Your task to perform on an android device: turn on translation in the chrome app Image 0: 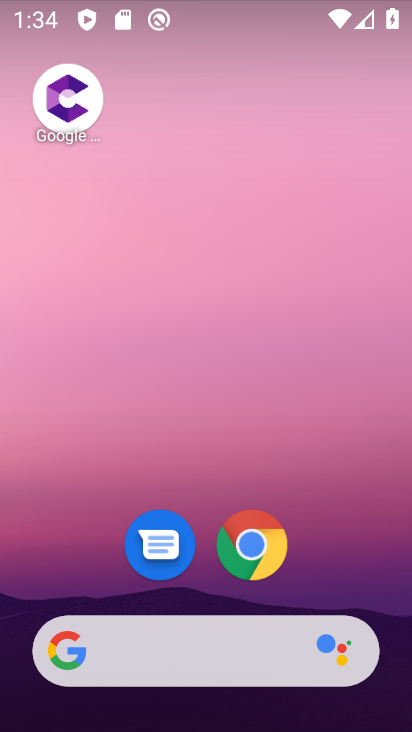
Step 0: drag from (376, 580) to (363, 152)
Your task to perform on an android device: turn on translation in the chrome app Image 1: 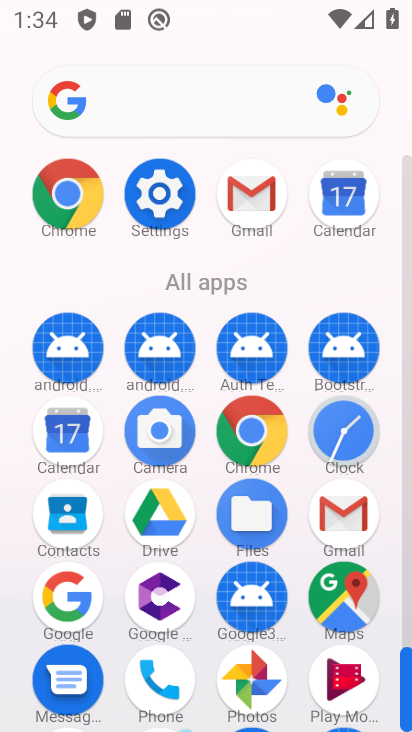
Step 1: click (280, 443)
Your task to perform on an android device: turn on translation in the chrome app Image 2: 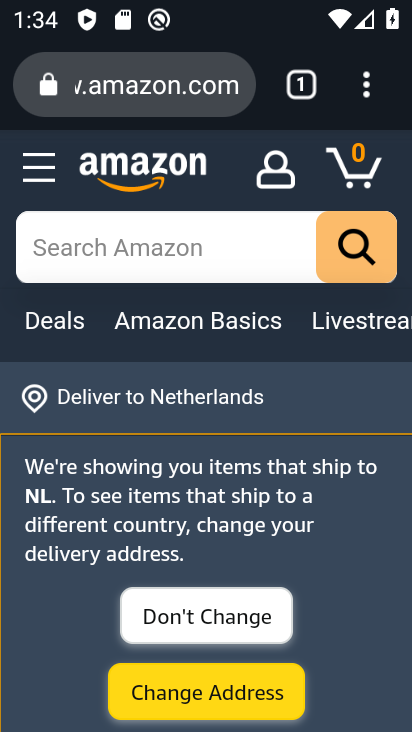
Step 2: click (367, 97)
Your task to perform on an android device: turn on translation in the chrome app Image 3: 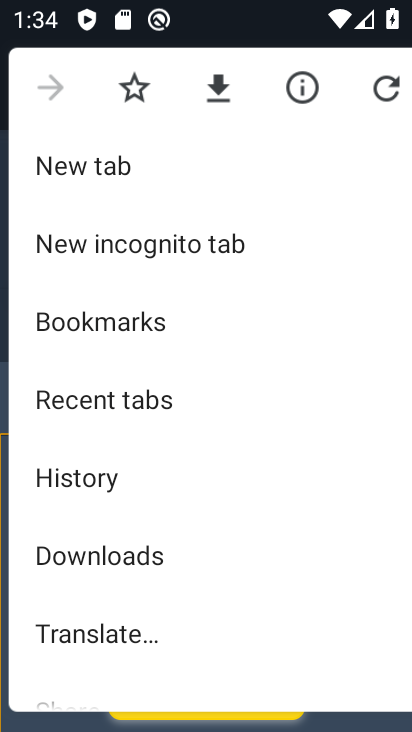
Step 3: drag from (317, 577) to (336, 463)
Your task to perform on an android device: turn on translation in the chrome app Image 4: 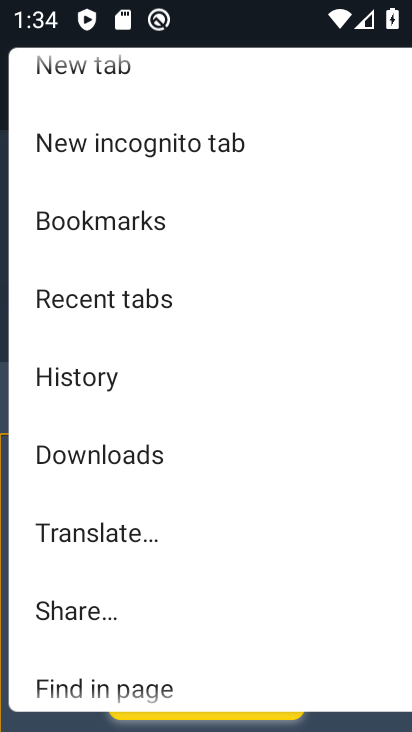
Step 4: drag from (283, 592) to (296, 426)
Your task to perform on an android device: turn on translation in the chrome app Image 5: 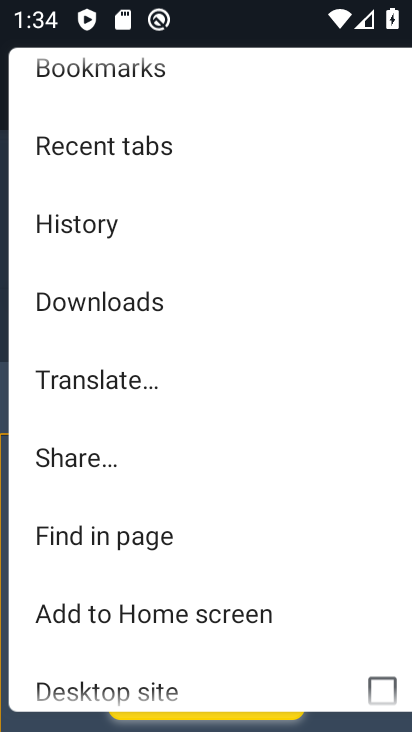
Step 5: drag from (304, 569) to (302, 430)
Your task to perform on an android device: turn on translation in the chrome app Image 6: 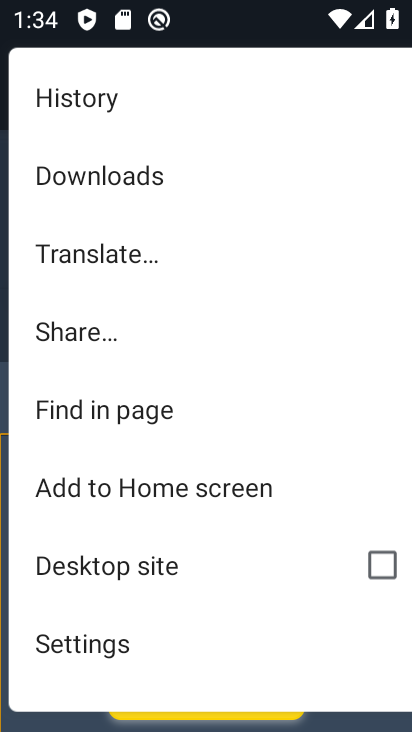
Step 6: drag from (291, 575) to (298, 497)
Your task to perform on an android device: turn on translation in the chrome app Image 7: 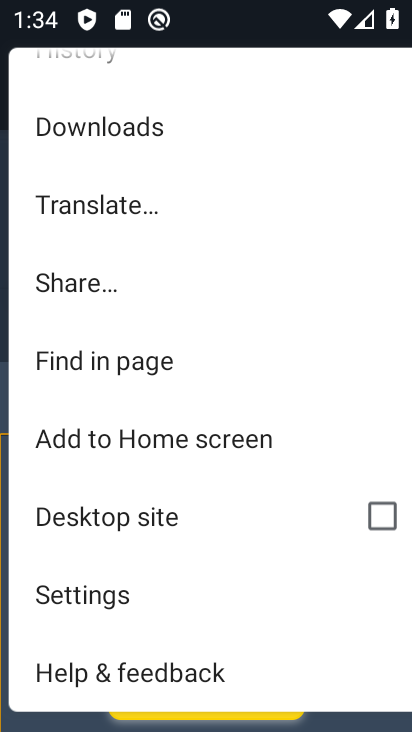
Step 7: drag from (297, 572) to (288, 436)
Your task to perform on an android device: turn on translation in the chrome app Image 8: 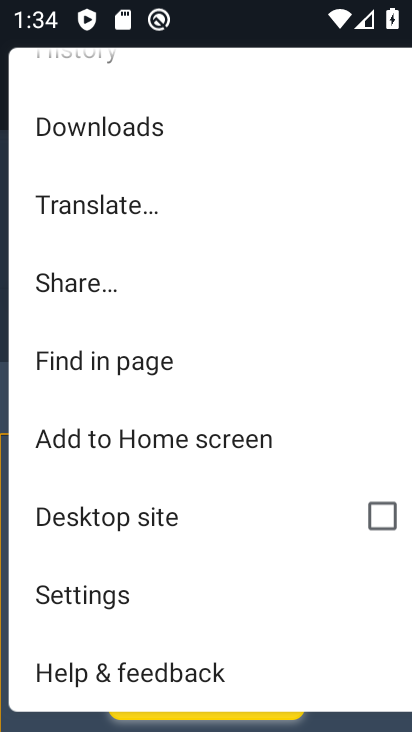
Step 8: click (136, 608)
Your task to perform on an android device: turn on translation in the chrome app Image 9: 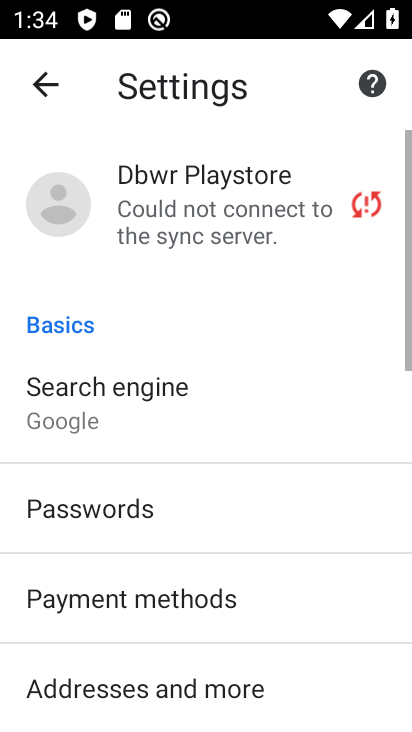
Step 9: drag from (297, 603) to (302, 494)
Your task to perform on an android device: turn on translation in the chrome app Image 10: 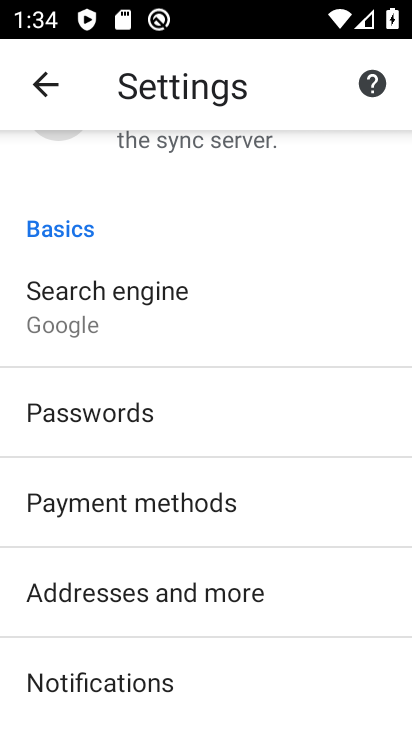
Step 10: drag from (316, 658) to (332, 566)
Your task to perform on an android device: turn on translation in the chrome app Image 11: 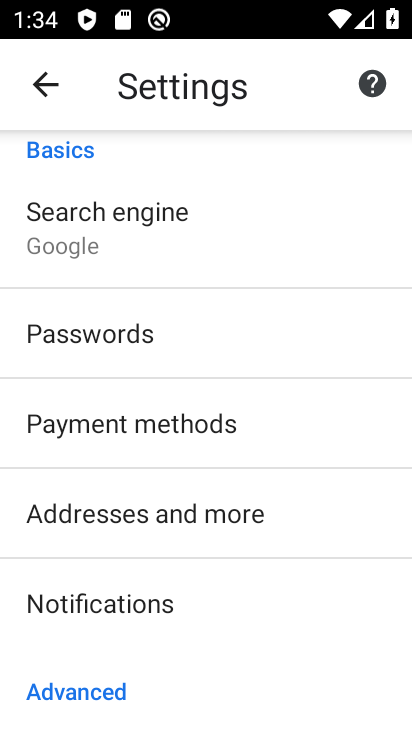
Step 11: drag from (313, 636) to (316, 566)
Your task to perform on an android device: turn on translation in the chrome app Image 12: 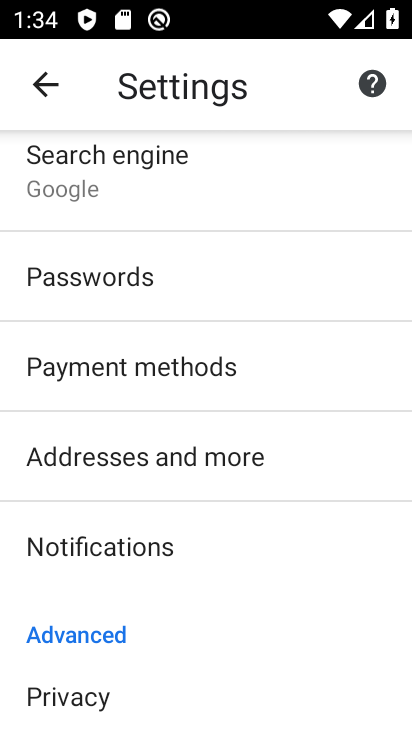
Step 12: drag from (306, 640) to (324, 547)
Your task to perform on an android device: turn on translation in the chrome app Image 13: 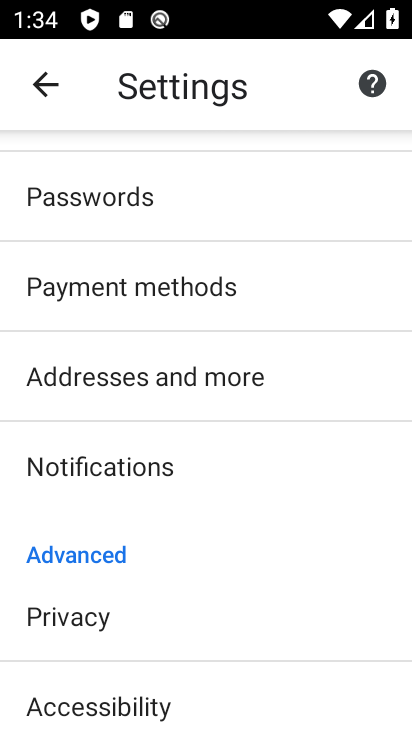
Step 13: drag from (319, 728) to (320, 573)
Your task to perform on an android device: turn on translation in the chrome app Image 14: 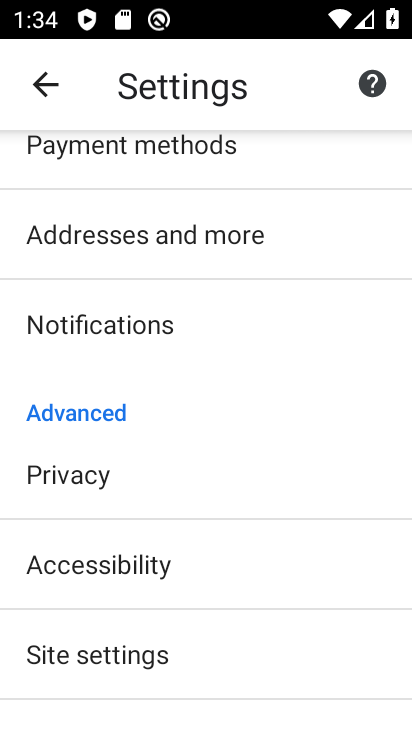
Step 14: drag from (292, 612) to (312, 404)
Your task to perform on an android device: turn on translation in the chrome app Image 15: 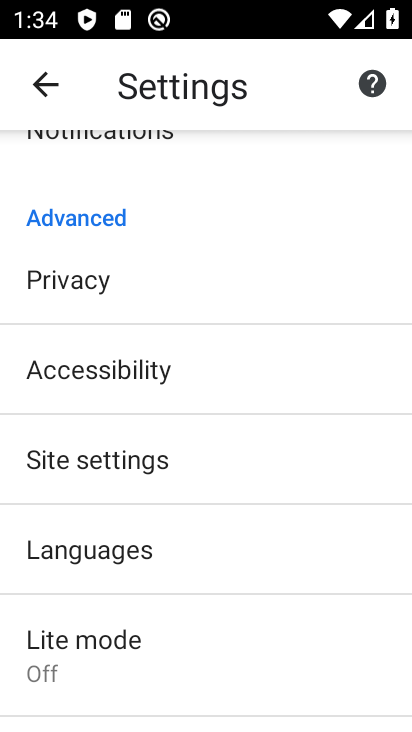
Step 15: drag from (292, 611) to (293, 487)
Your task to perform on an android device: turn on translation in the chrome app Image 16: 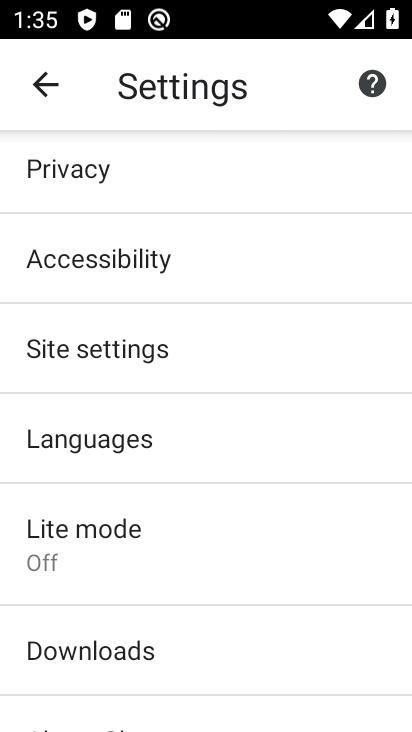
Step 16: drag from (295, 630) to (293, 540)
Your task to perform on an android device: turn on translation in the chrome app Image 17: 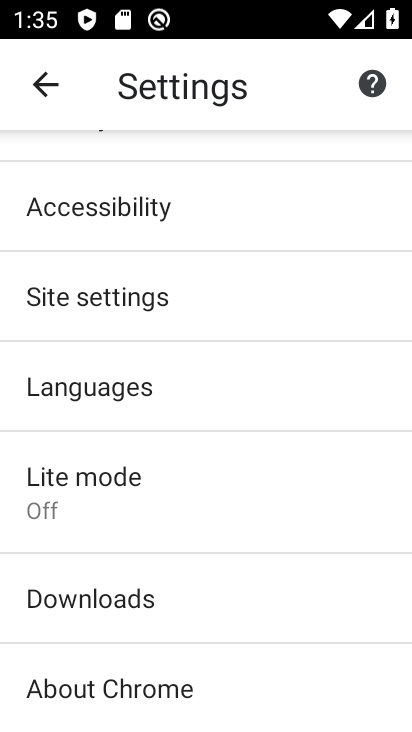
Step 17: click (237, 375)
Your task to perform on an android device: turn on translation in the chrome app Image 18: 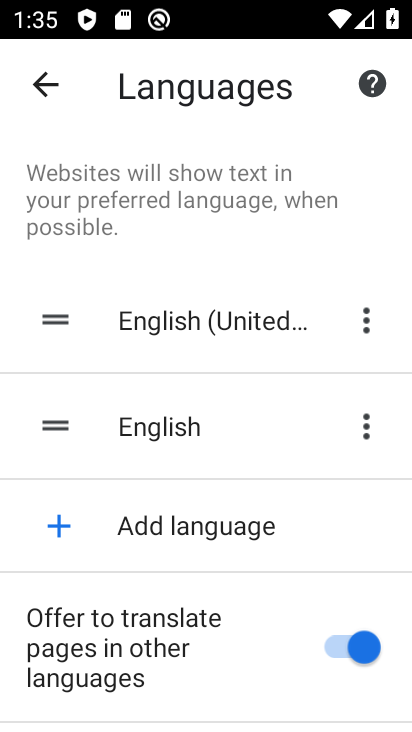
Step 18: task complete